Your task to perform on an android device: set default search engine in the chrome app Image 0: 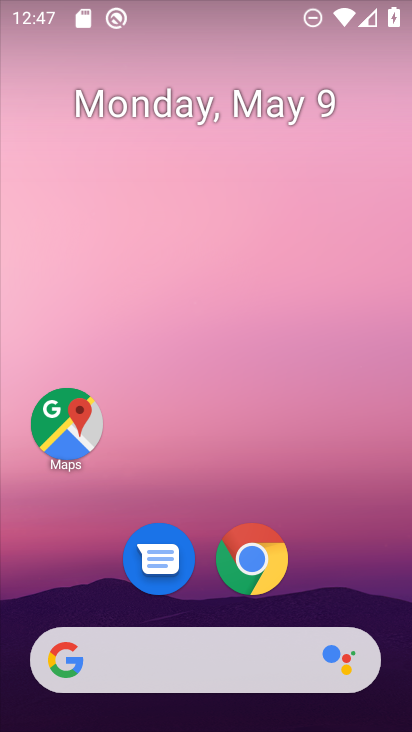
Step 0: drag from (357, 575) to (353, 109)
Your task to perform on an android device: set default search engine in the chrome app Image 1: 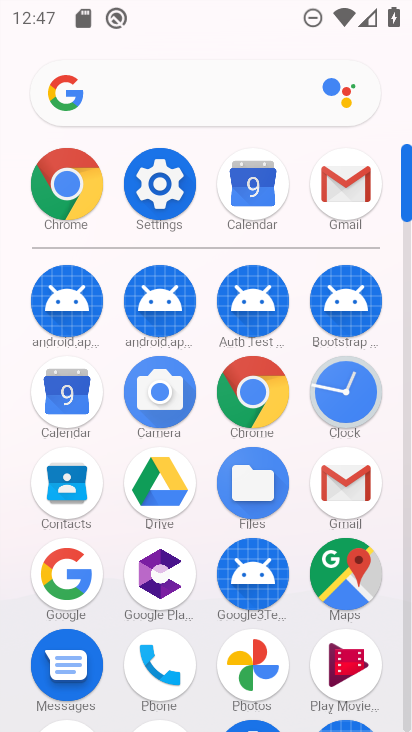
Step 1: click (64, 182)
Your task to perform on an android device: set default search engine in the chrome app Image 2: 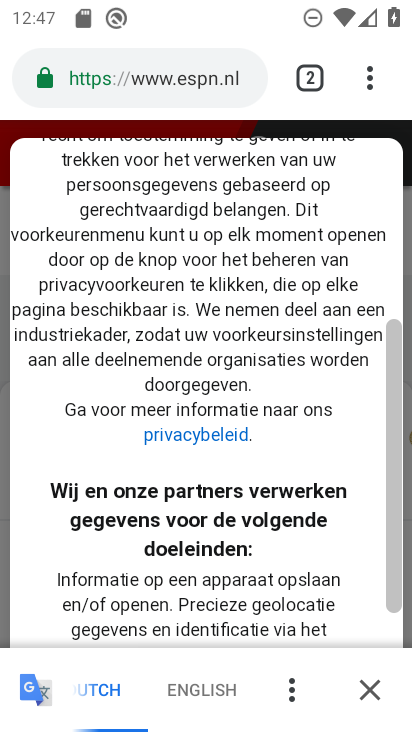
Step 2: drag from (371, 71) to (182, 628)
Your task to perform on an android device: set default search engine in the chrome app Image 3: 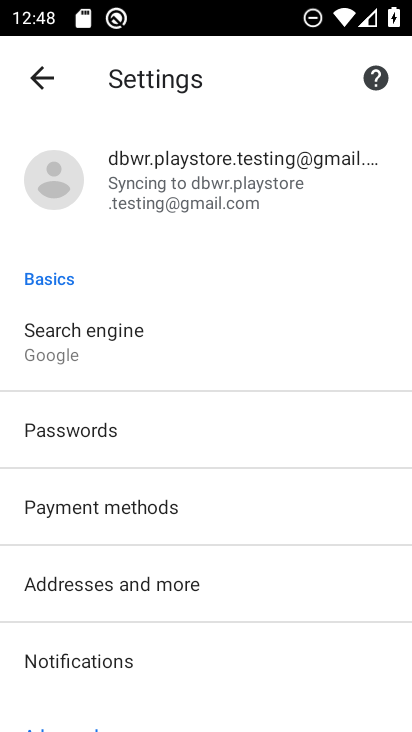
Step 3: click (158, 336)
Your task to perform on an android device: set default search engine in the chrome app Image 4: 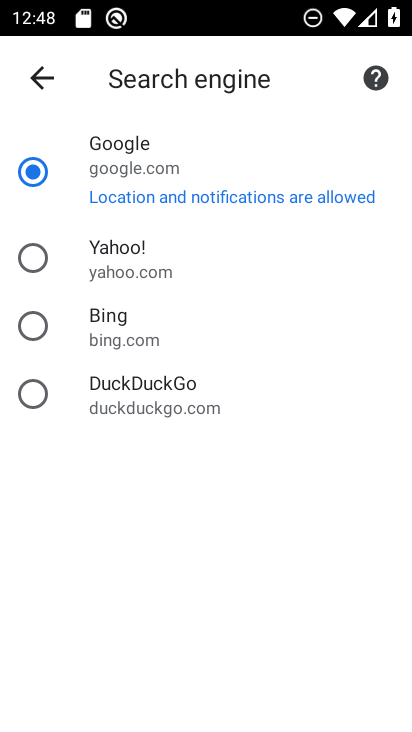
Step 4: task complete